Your task to perform on an android device: What's the weather going to be tomorrow? Image 0: 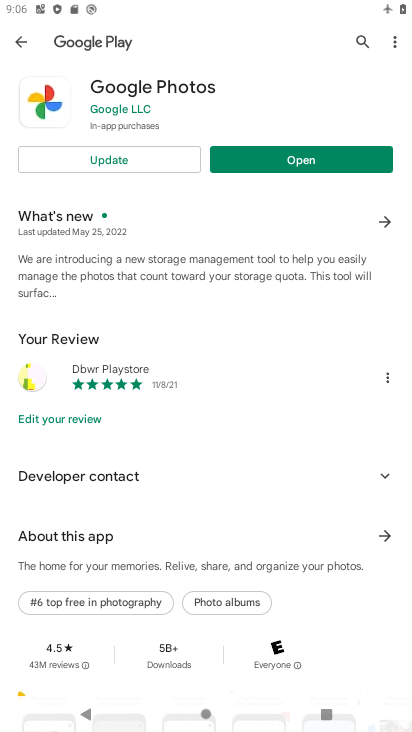
Step 0: press home button
Your task to perform on an android device: What's the weather going to be tomorrow? Image 1: 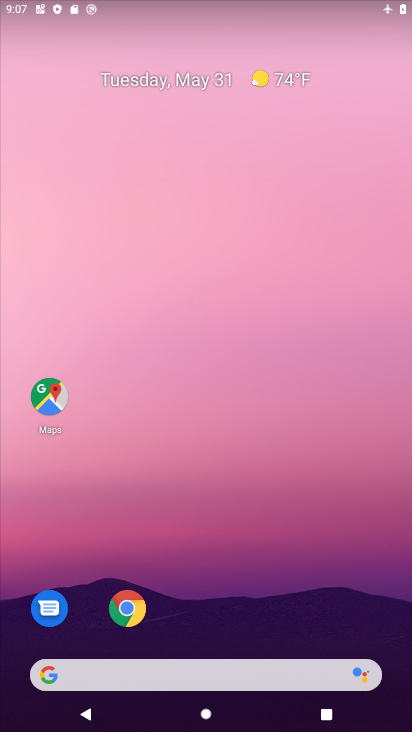
Step 1: click (136, 688)
Your task to perform on an android device: What's the weather going to be tomorrow? Image 2: 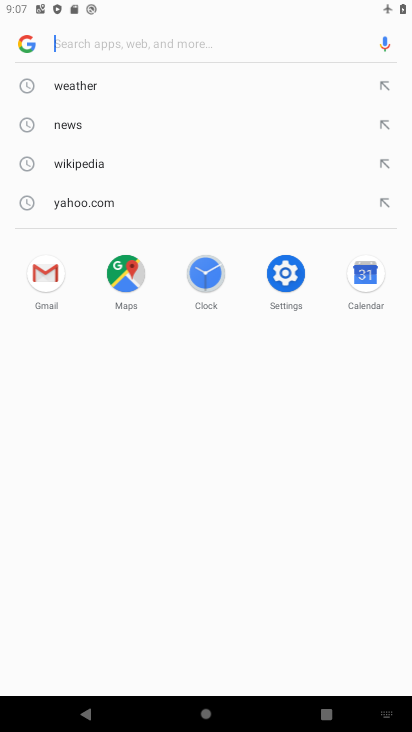
Step 2: click (111, 79)
Your task to perform on an android device: What's the weather going to be tomorrow? Image 3: 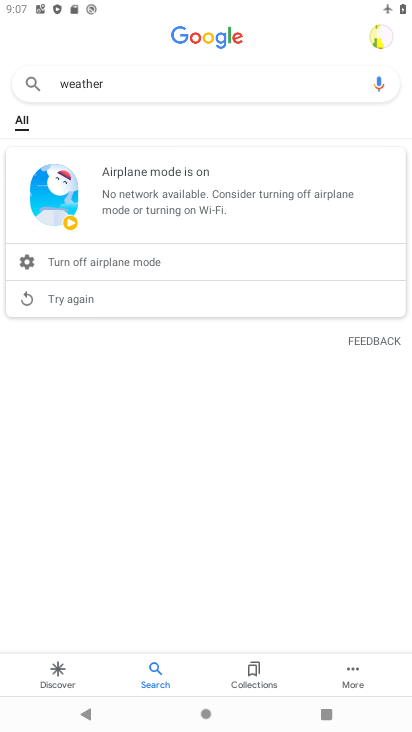
Step 3: task complete